Your task to perform on an android device: empty trash in google photos Image 0: 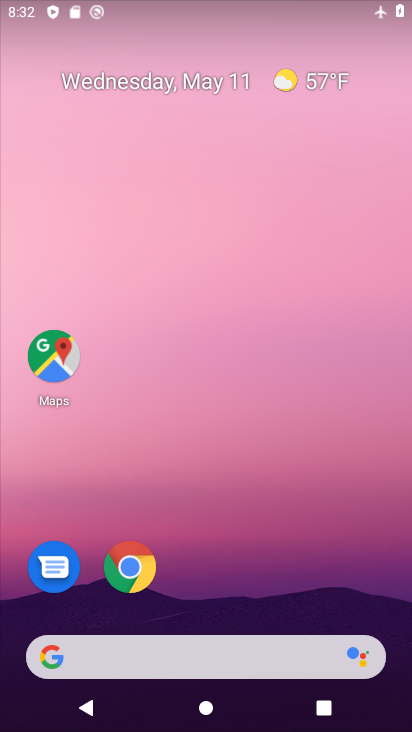
Step 0: drag from (286, 520) to (234, 6)
Your task to perform on an android device: empty trash in google photos Image 1: 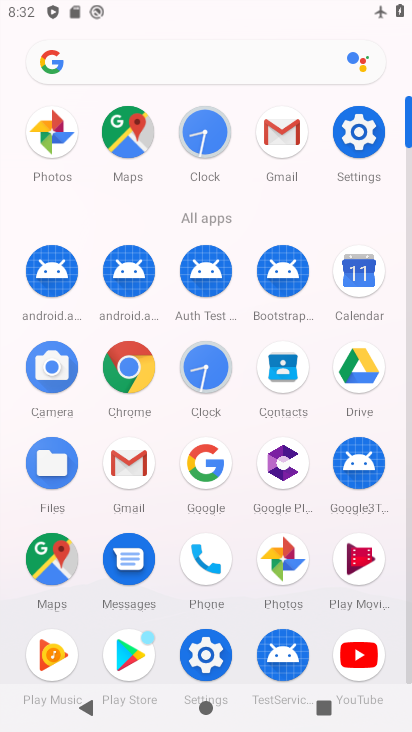
Step 1: click (266, 556)
Your task to perform on an android device: empty trash in google photos Image 2: 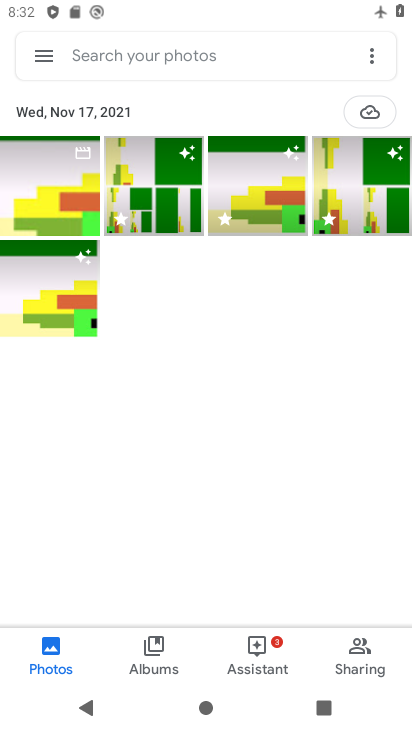
Step 2: click (40, 50)
Your task to perform on an android device: empty trash in google photos Image 3: 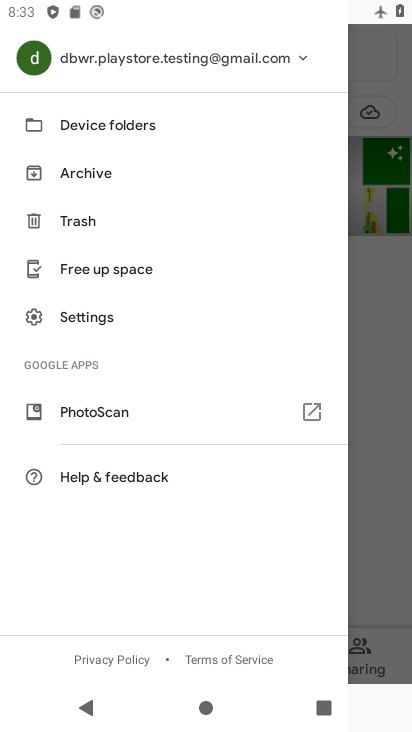
Step 3: click (89, 213)
Your task to perform on an android device: empty trash in google photos Image 4: 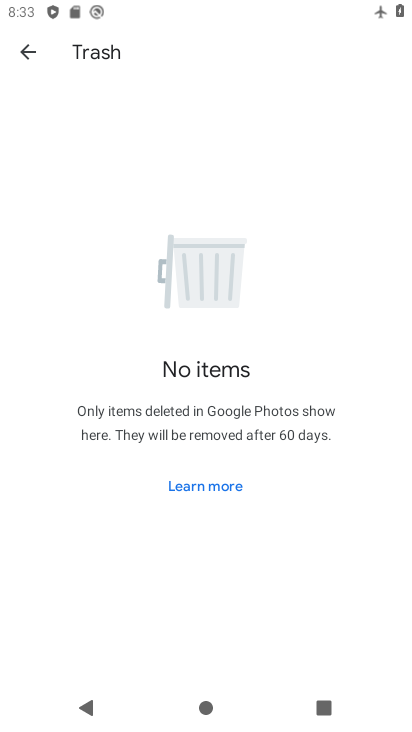
Step 4: task complete